Your task to perform on an android device: What's the weather going to be tomorrow? Image 0: 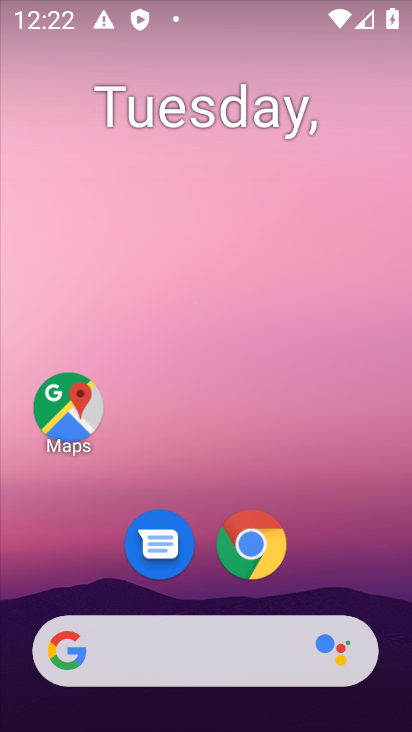
Step 0: click (246, 546)
Your task to perform on an android device: What's the weather going to be tomorrow? Image 1: 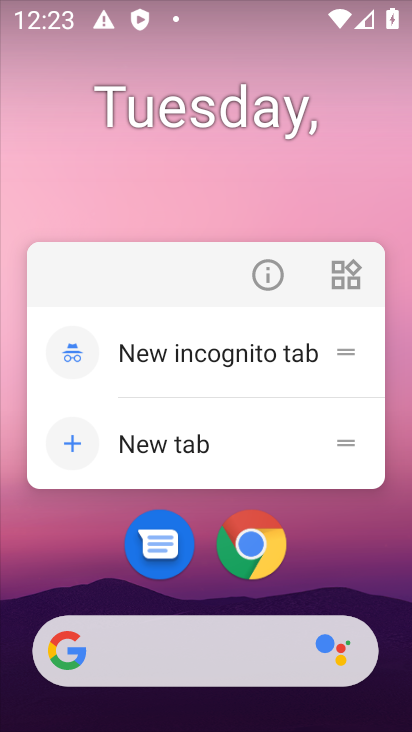
Step 1: click (248, 545)
Your task to perform on an android device: What's the weather going to be tomorrow? Image 2: 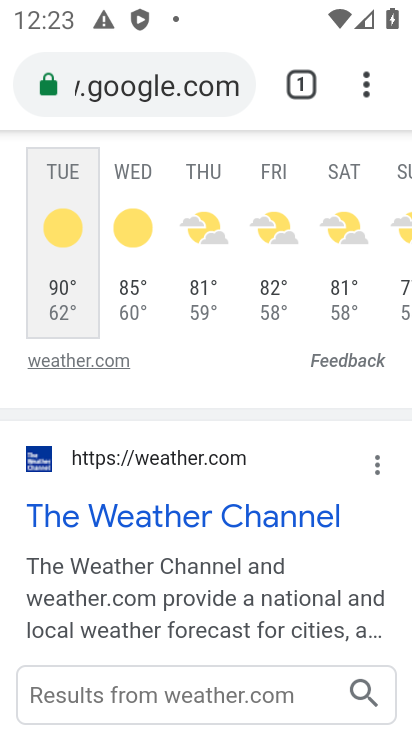
Step 2: click (138, 303)
Your task to perform on an android device: What's the weather going to be tomorrow? Image 3: 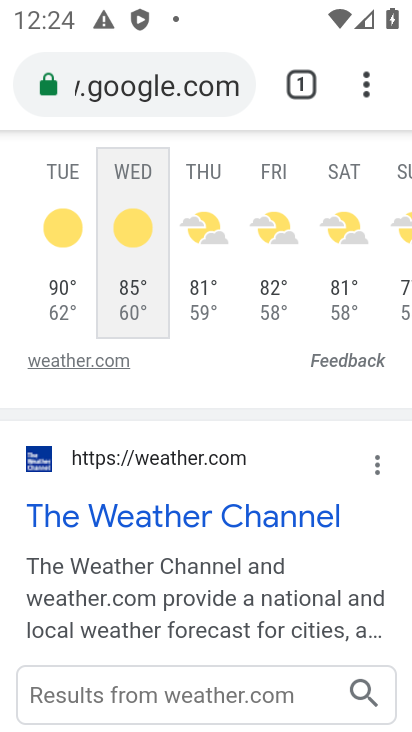
Step 3: task complete